Your task to perform on an android device: See recent photos Image 0: 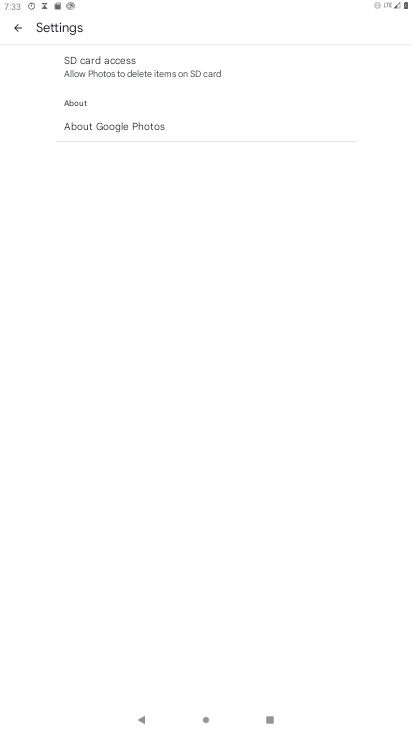
Step 0: press home button
Your task to perform on an android device: See recent photos Image 1: 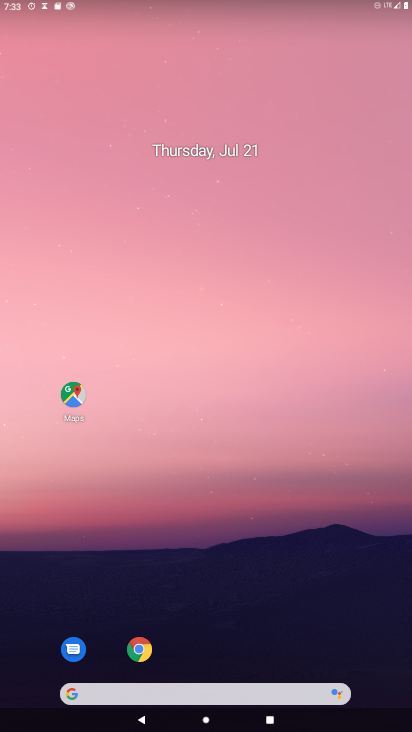
Step 1: drag from (345, 574) to (235, 9)
Your task to perform on an android device: See recent photos Image 2: 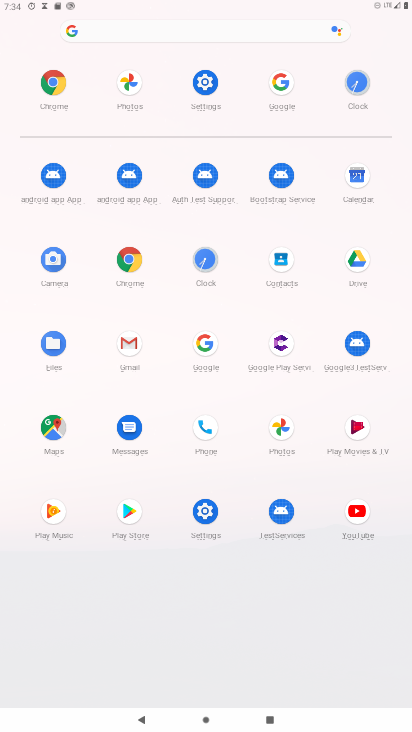
Step 2: click (286, 423)
Your task to perform on an android device: See recent photos Image 3: 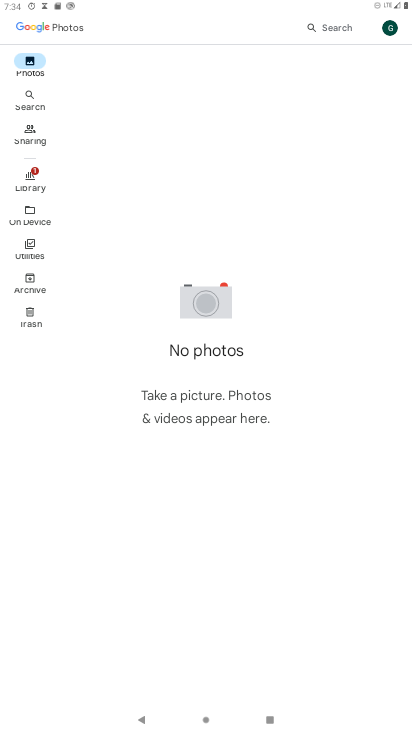
Step 3: task complete